Your task to perform on an android device: Open the phone app and click the voicemail tab. Image 0: 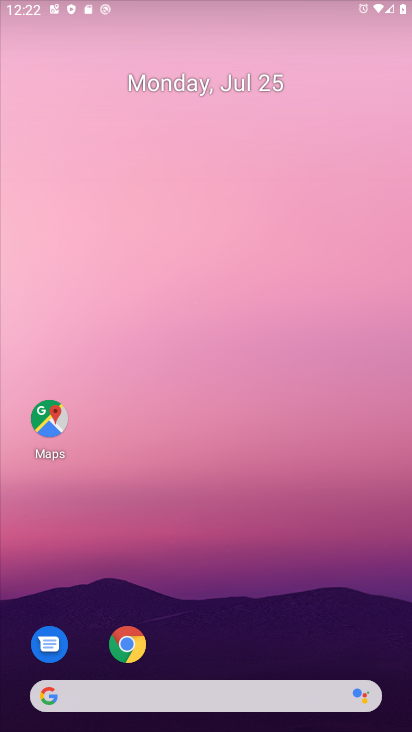
Step 0: drag from (371, 614) to (84, 32)
Your task to perform on an android device: Open the phone app and click the voicemail tab. Image 1: 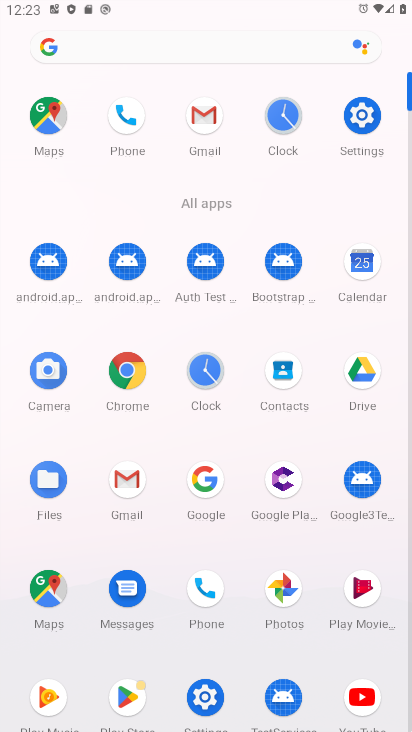
Step 1: click (193, 573)
Your task to perform on an android device: Open the phone app and click the voicemail tab. Image 2: 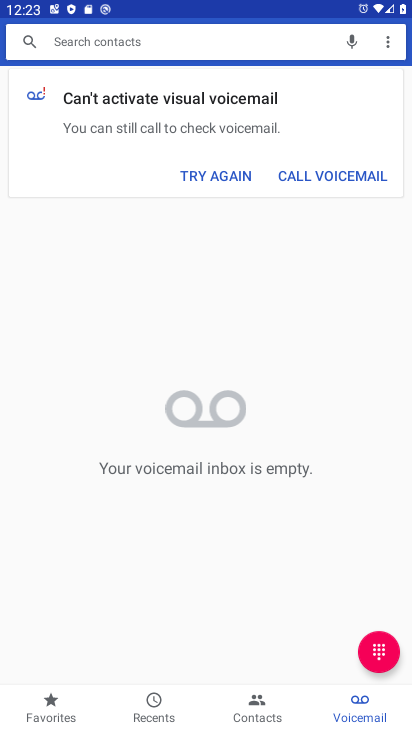
Step 2: task complete